Your task to perform on an android device: delete browsing data in the chrome app Image 0: 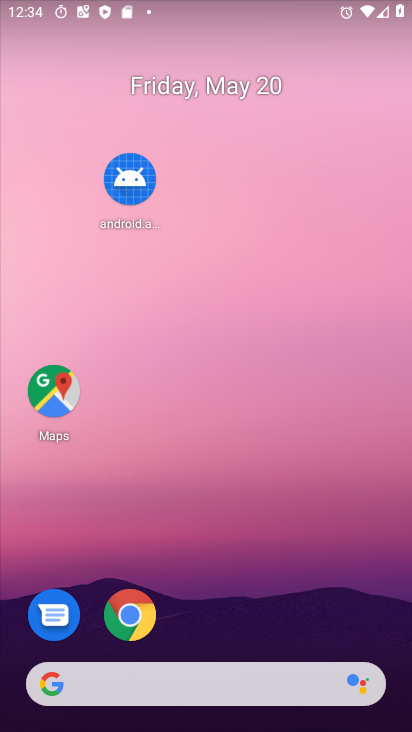
Step 0: click (137, 603)
Your task to perform on an android device: delete browsing data in the chrome app Image 1: 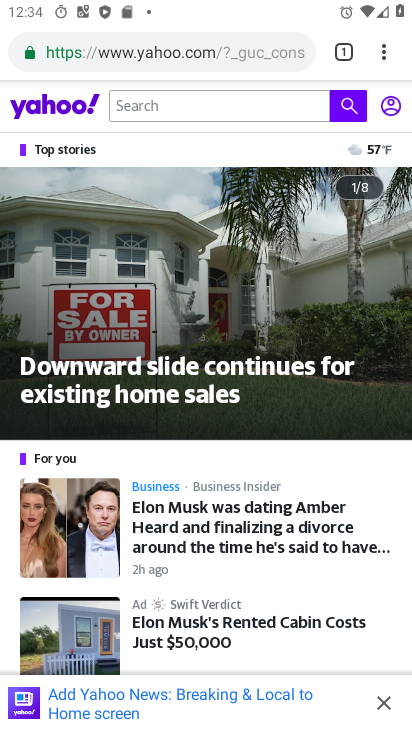
Step 1: click (388, 54)
Your task to perform on an android device: delete browsing data in the chrome app Image 2: 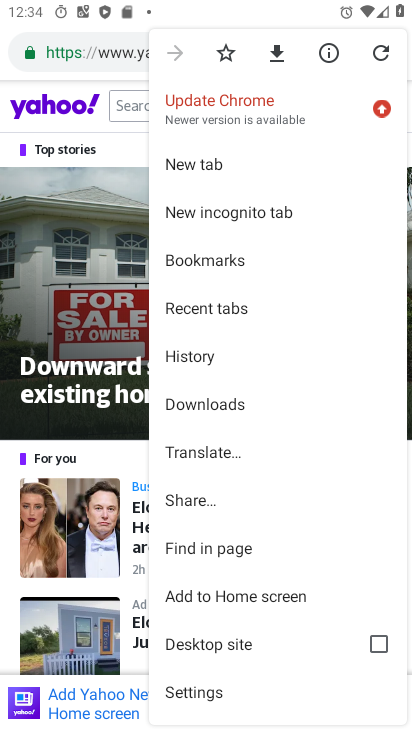
Step 2: click (207, 359)
Your task to perform on an android device: delete browsing data in the chrome app Image 3: 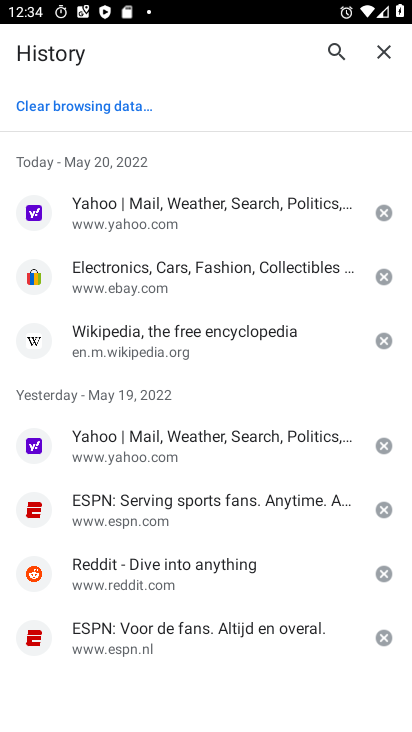
Step 3: click (99, 105)
Your task to perform on an android device: delete browsing data in the chrome app Image 4: 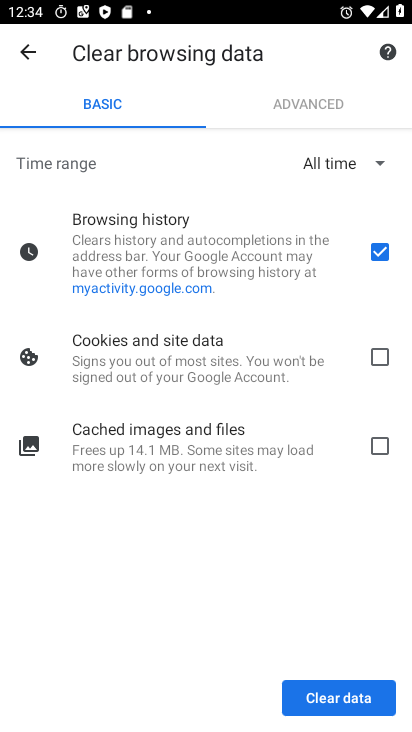
Step 4: click (350, 696)
Your task to perform on an android device: delete browsing data in the chrome app Image 5: 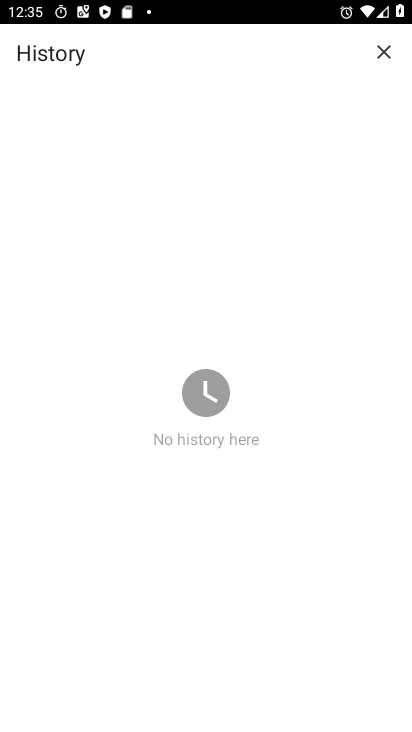
Step 5: task complete